Your task to perform on an android device: see sites visited before in the chrome app Image 0: 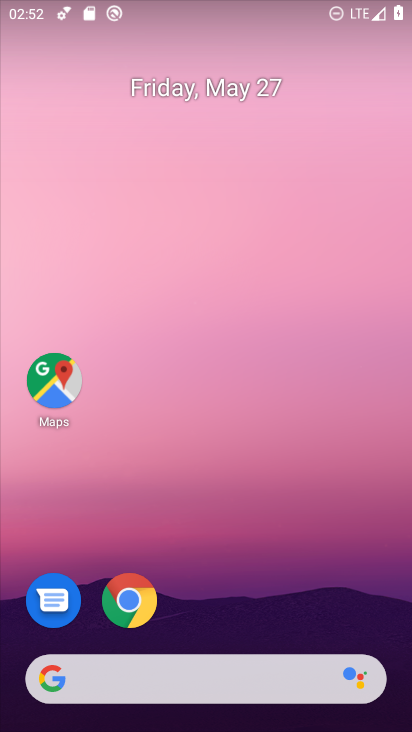
Step 0: click (124, 606)
Your task to perform on an android device: see sites visited before in the chrome app Image 1: 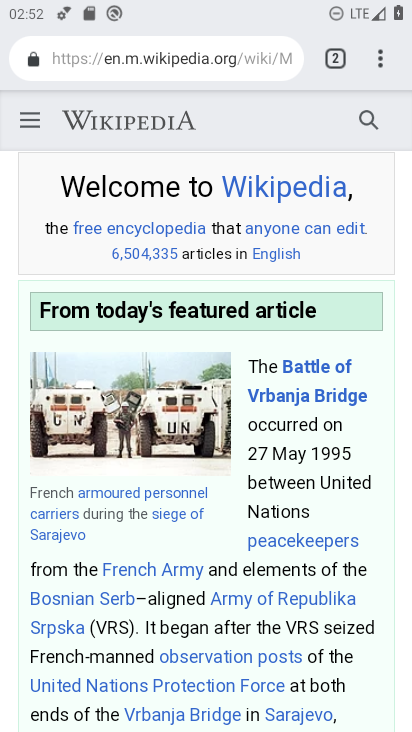
Step 1: click (379, 64)
Your task to perform on an android device: see sites visited before in the chrome app Image 2: 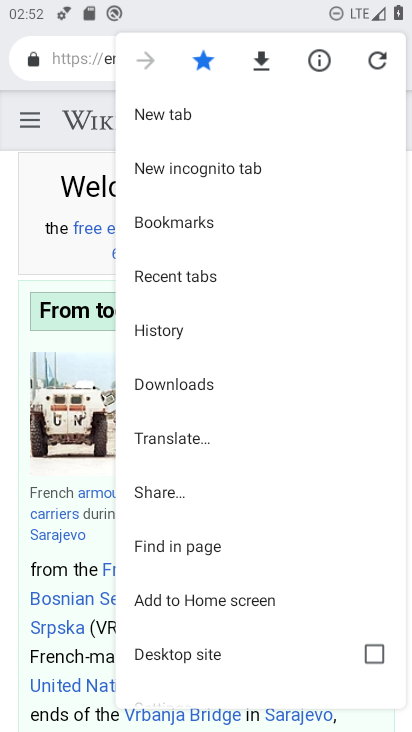
Step 2: click (169, 328)
Your task to perform on an android device: see sites visited before in the chrome app Image 3: 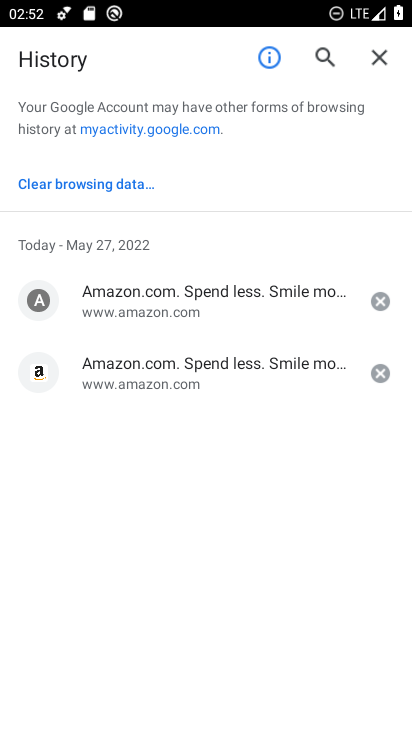
Step 3: task complete